Your task to perform on an android device: toggle data saver in the chrome app Image 0: 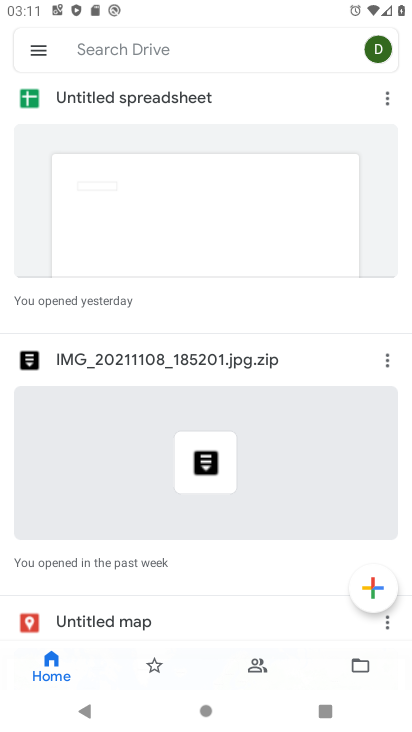
Step 0: press home button
Your task to perform on an android device: toggle data saver in the chrome app Image 1: 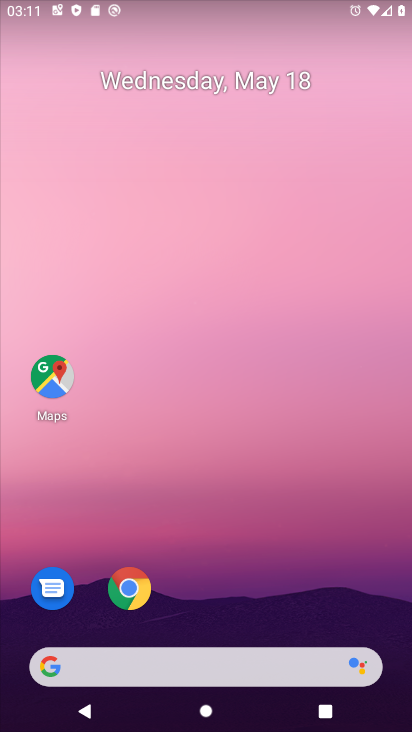
Step 1: click (129, 581)
Your task to perform on an android device: toggle data saver in the chrome app Image 2: 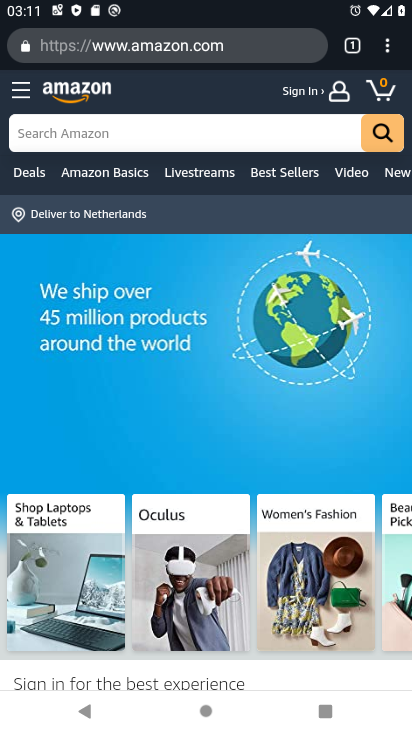
Step 2: click (381, 37)
Your task to perform on an android device: toggle data saver in the chrome app Image 3: 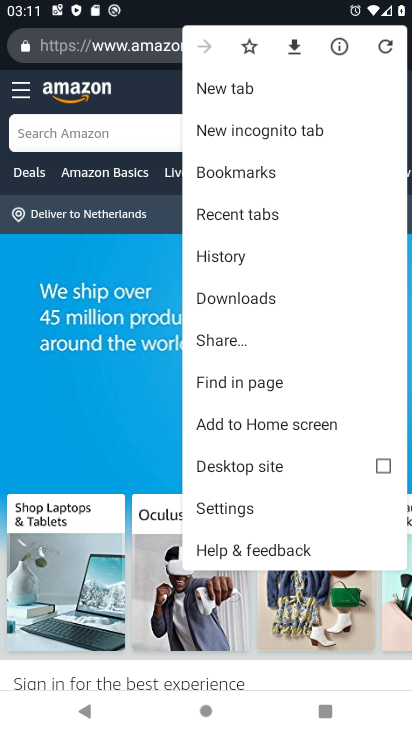
Step 3: click (231, 509)
Your task to perform on an android device: toggle data saver in the chrome app Image 4: 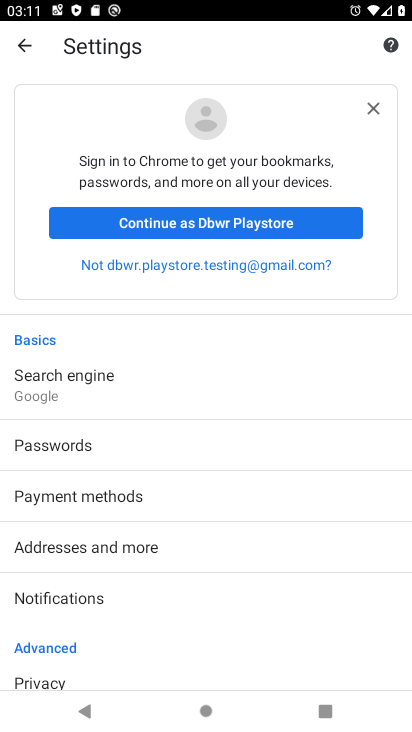
Step 4: drag from (20, 537) to (226, 133)
Your task to perform on an android device: toggle data saver in the chrome app Image 5: 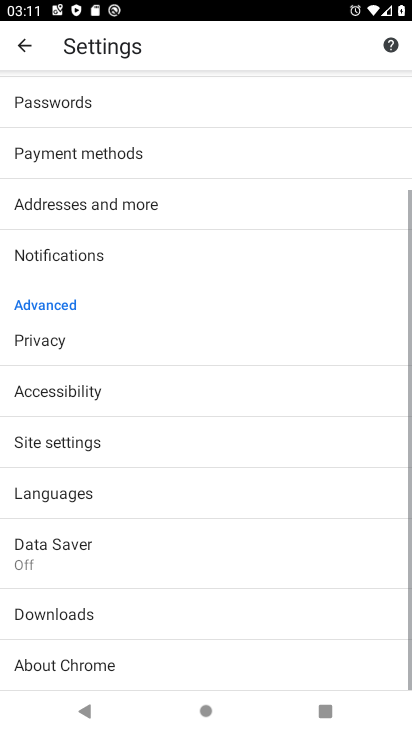
Step 5: click (76, 556)
Your task to perform on an android device: toggle data saver in the chrome app Image 6: 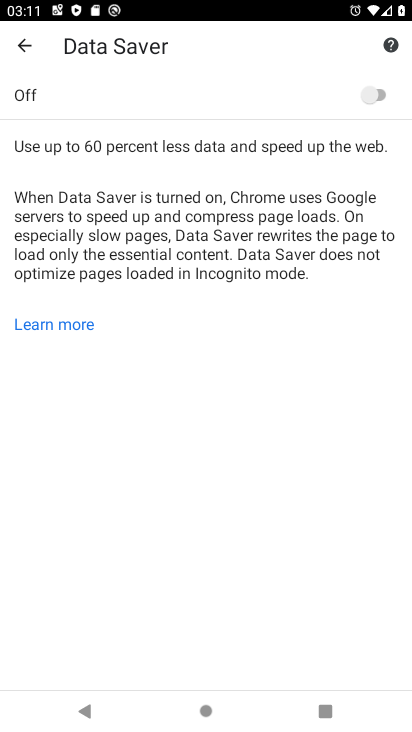
Step 6: click (366, 99)
Your task to perform on an android device: toggle data saver in the chrome app Image 7: 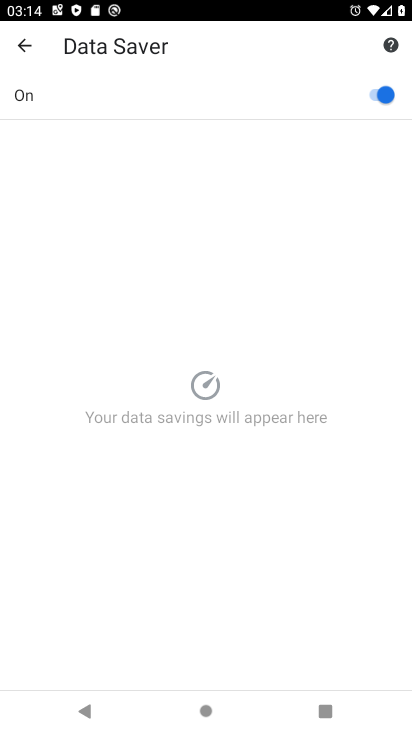
Step 7: task complete